Your task to perform on an android device: Open maps Image 0: 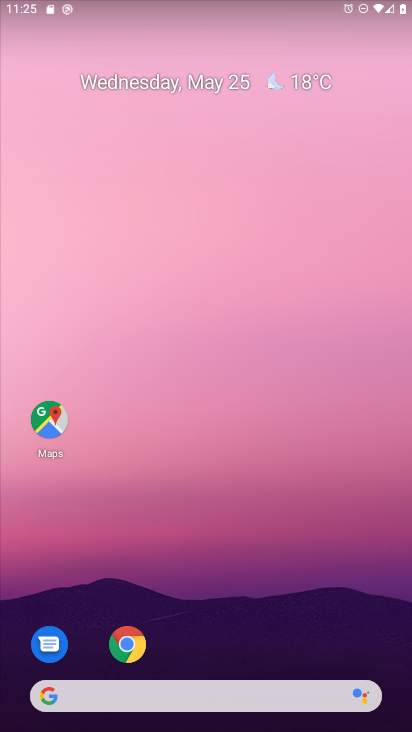
Step 0: press home button
Your task to perform on an android device: Open maps Image 1: 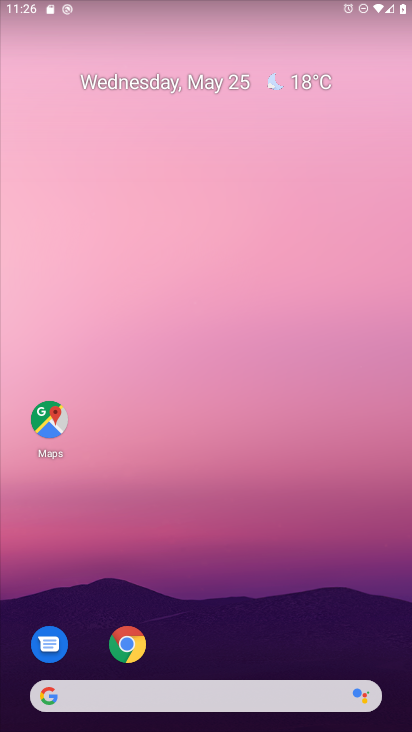
Step 1: click (51, 412)
Your task to perform on an android device: Open maps Image 2: 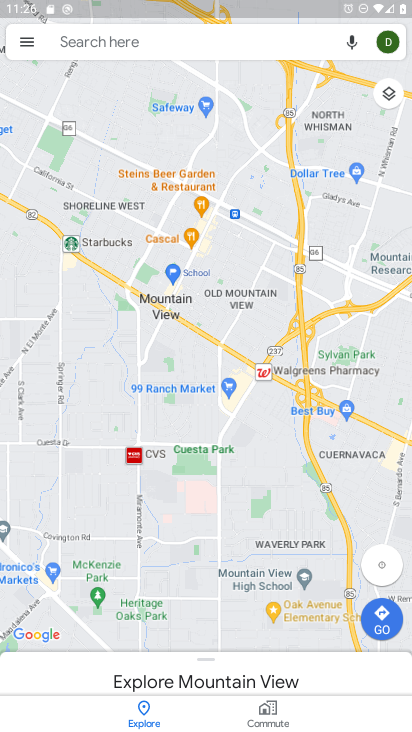
Step 2: click (377, 610)
Your task to perform on an android device: Open maps Image 3: 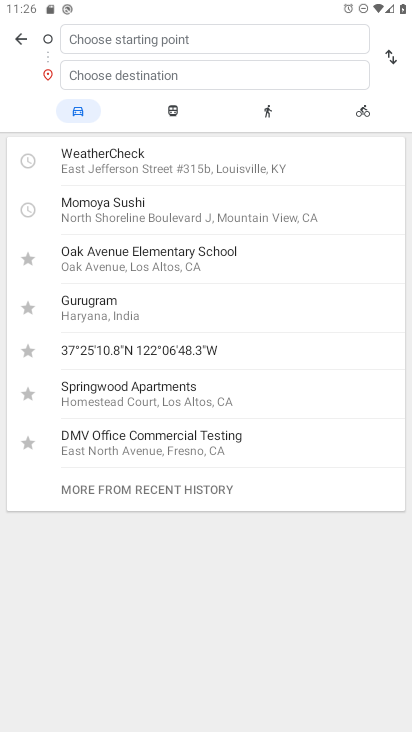
Step 3: task complete